Your task to perform on an android device: Open ESPN.com Image 0: 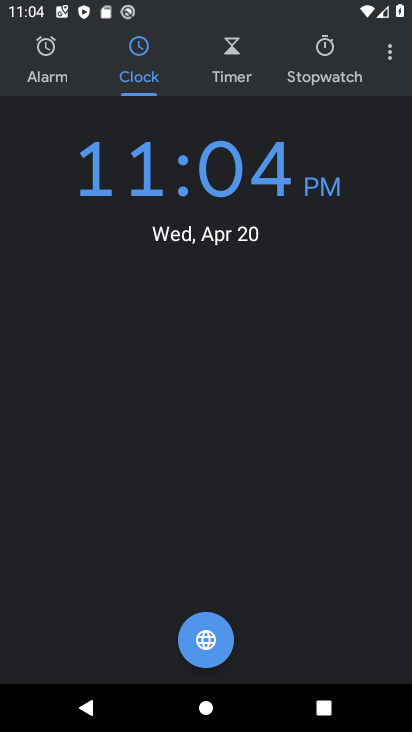
Step 0: press back button
Your task to perform on an android device: Open ESPN.com Image 1: 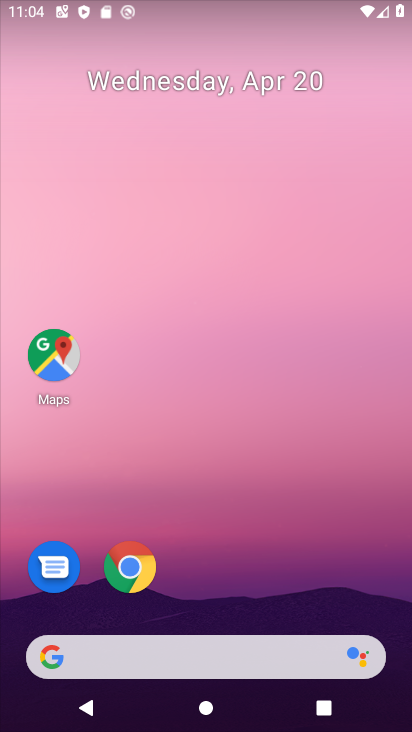
Step 1: click (131, 566)
Your task to perform on an android device: Open ESPN.com Image 2: 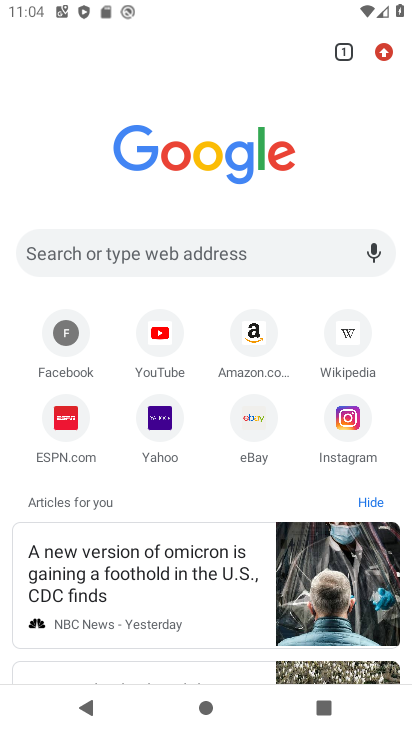
Step 2: click (217, 251)
Your task to perform on an android device: Open ESPN.com Image 3: 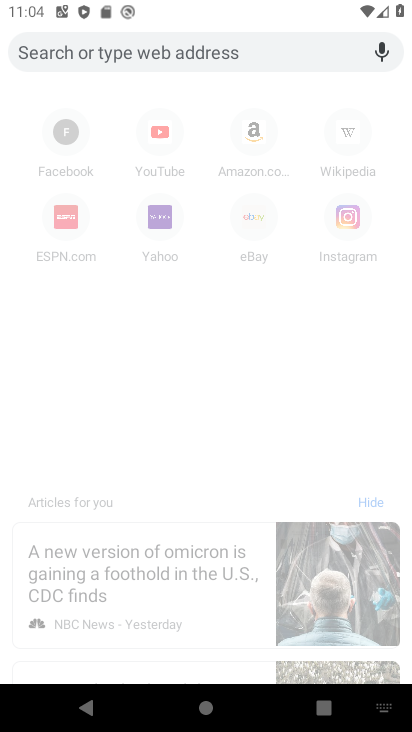
Step 3: click (65, 227)
Your task to perform on an android device: Open ESPN.com Image 4: 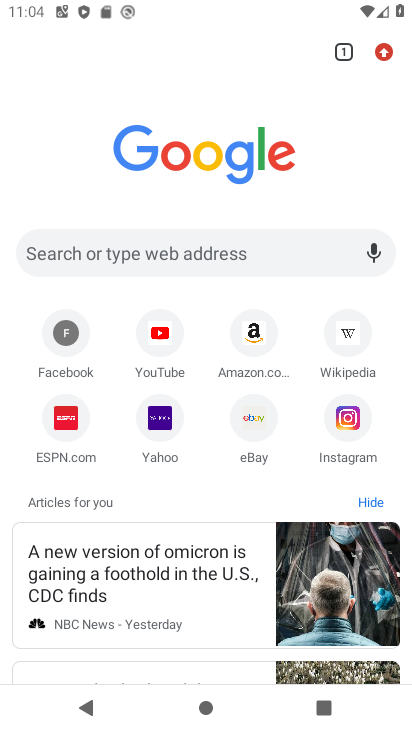
Step 4: click (68, 402)
Your task to perform on an android device: Open ESPN.com Image 5: 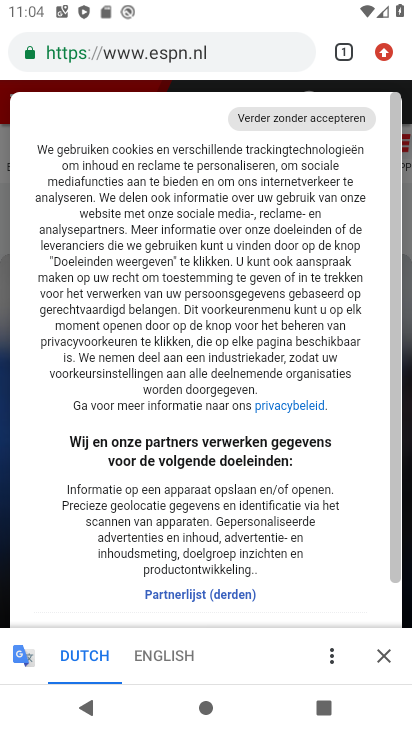
Step 5: task complete